Your task to perform on an android device: Open accessibility settings Image 0: 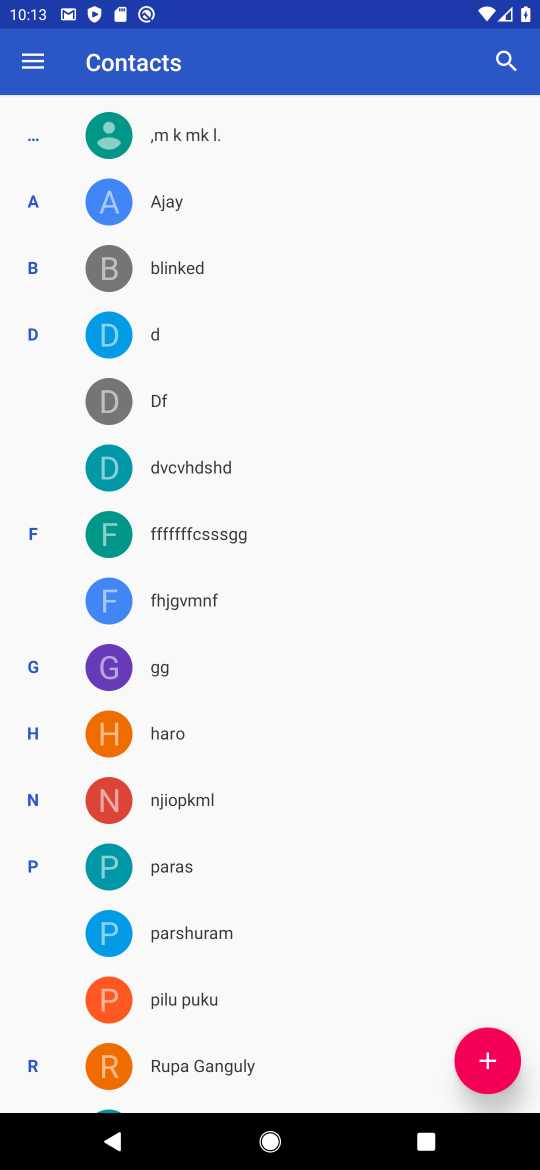
Step 0: press home button
Your task to perform on an android device: Open accessibility settings Image 1: 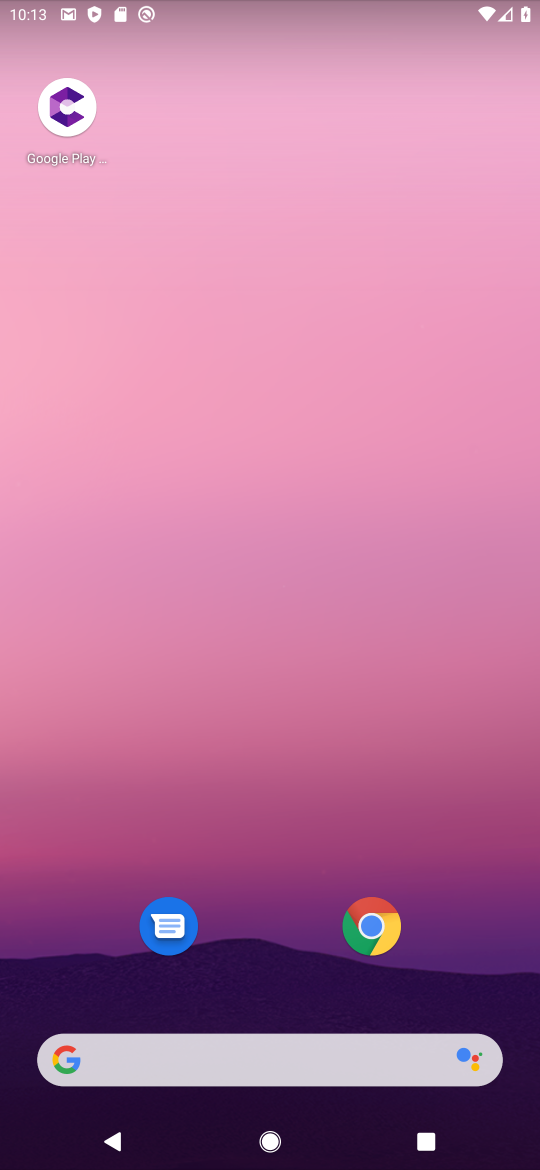
Step 1: drag from (490, 996) to (376, 138)
Your task to perform on an android device: Open accessibility settings Image 2: 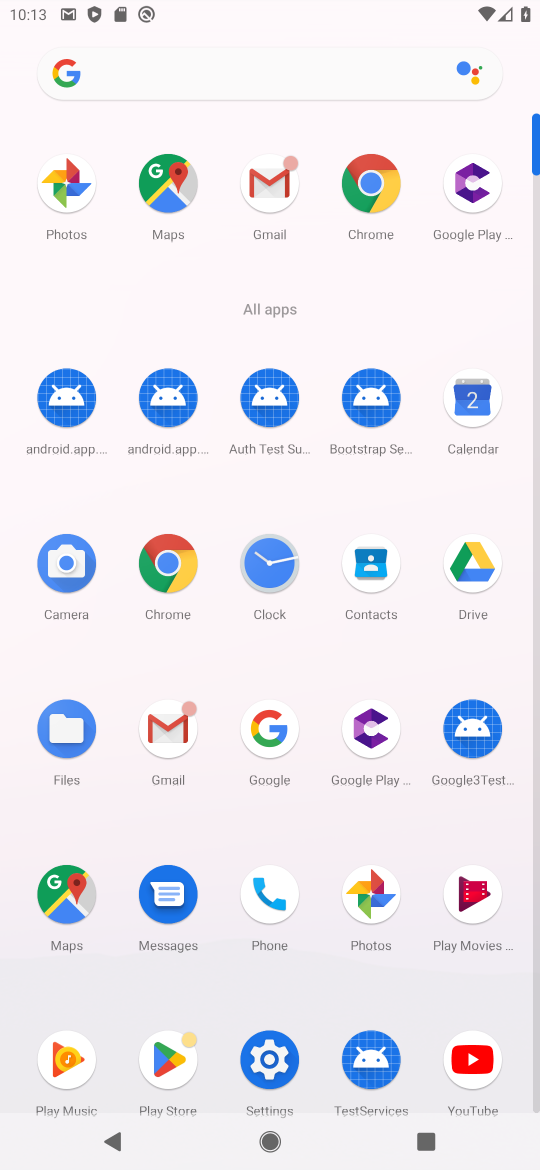
Step 2: click (267, 1066)
Your task to perform on an android device: Open accessibility settings Image 3: 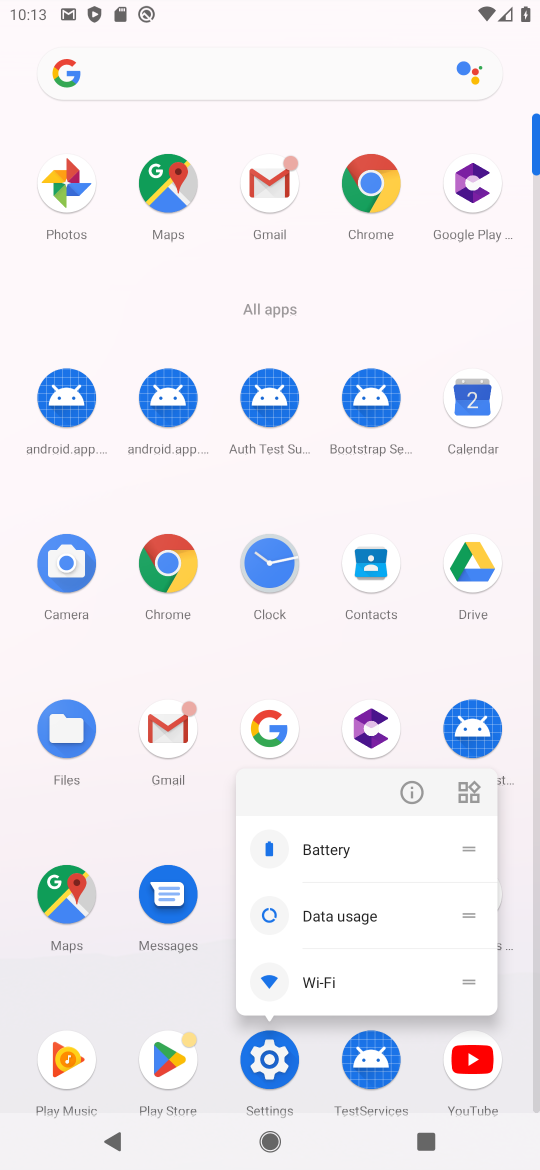
Step 3: click (267, 1066)
Your task to perform on an android device: Open accessibility settings Image 4: 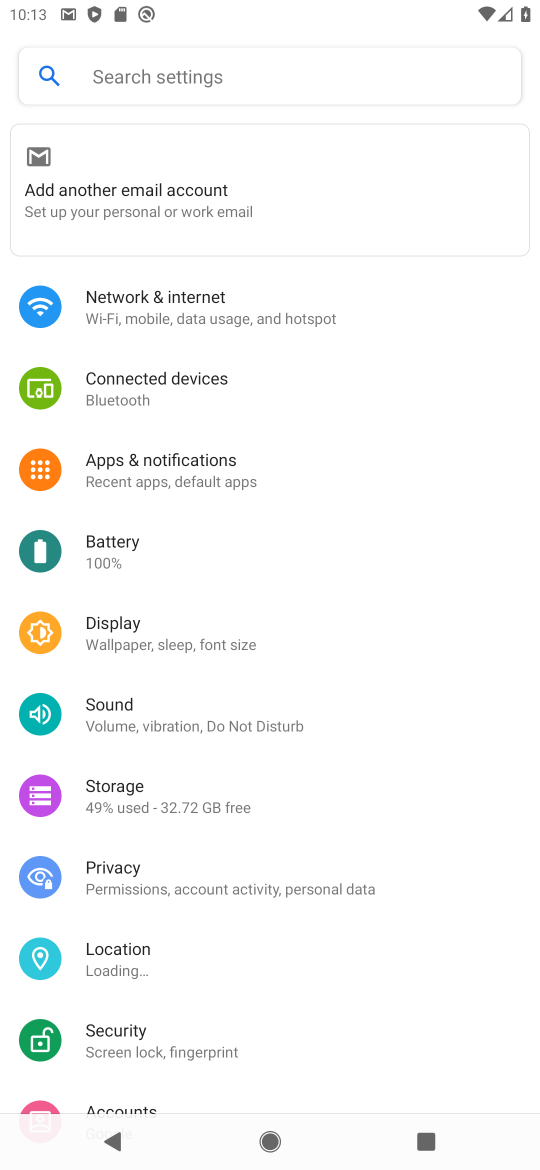
Step 4: drag from (294, 1027) to (355, 157)
Your task to perform on an android device: Open accessibility settings Image 5: 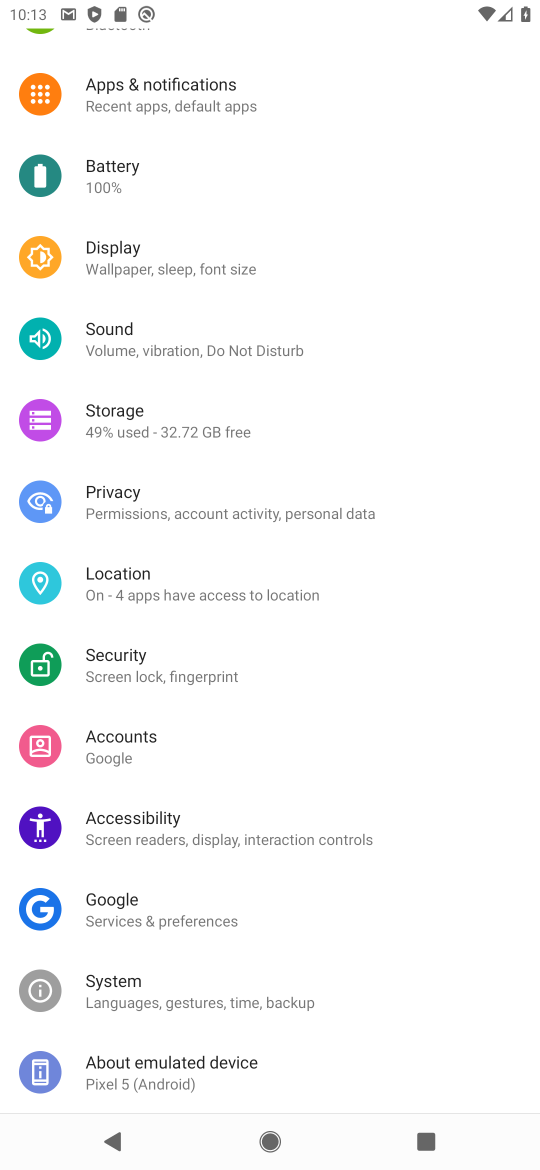
Step 5: click (241, 822)
Your task to perform on an android device: Open accessibility settings Image 6: 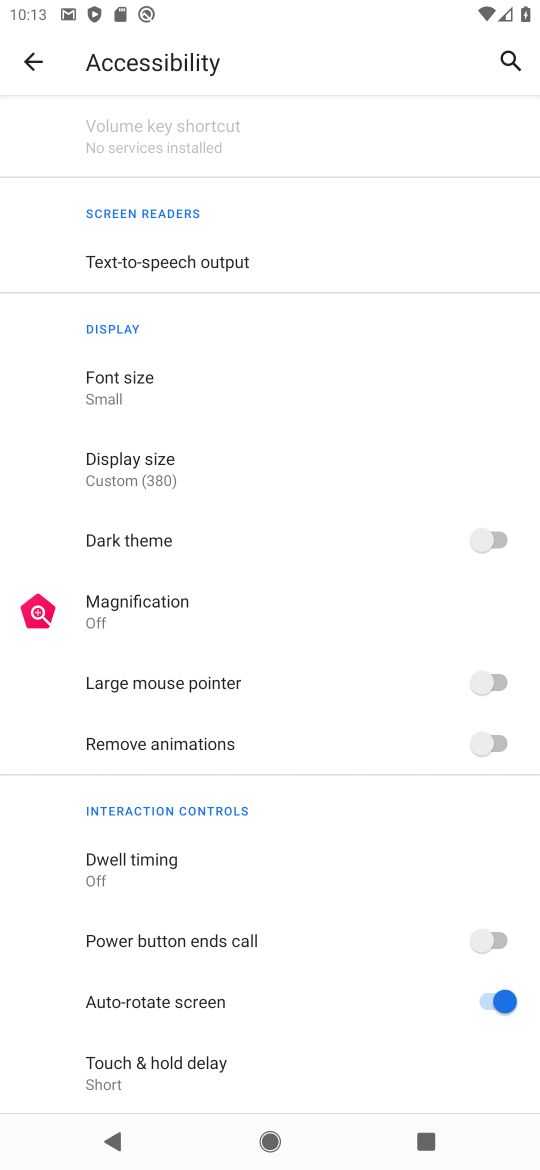
Step 6: task complete